Your task to perform on an android device: Show me recent news Image 0: 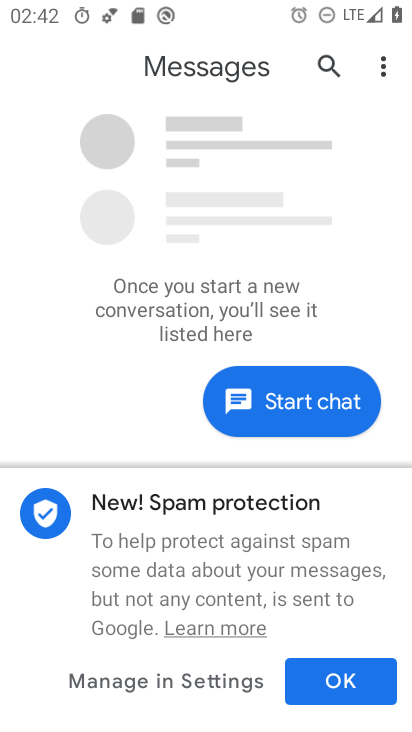
Step 0: press home button
Your task to perform on an android device: Show me recent news Image 1: 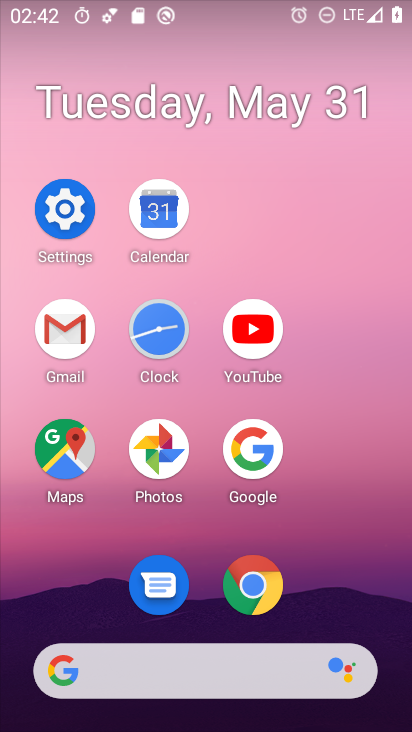
Step 1: click (252, 457)
Your task to perform on an android device: Show me recent news Image 2: 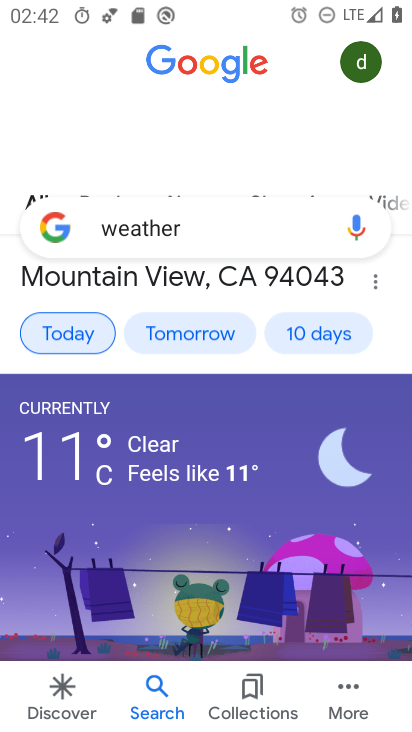
Step 2: click (234, 222)
Your task to perform on an android device: Show me recent news Image 3: 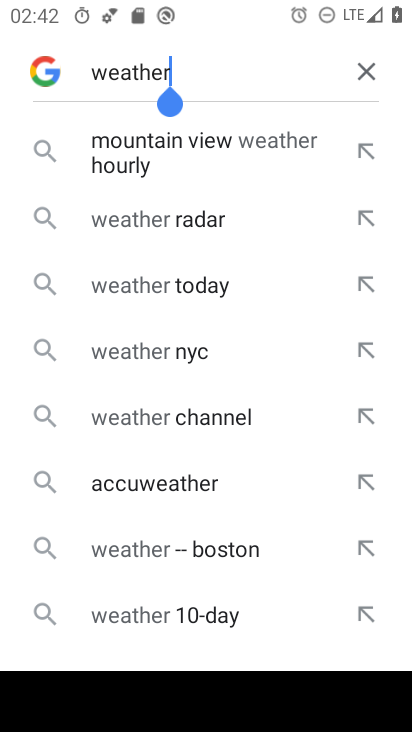
Step 3: click (370, 75)
Your task to perform on an android device: Show me recent news Image 4: 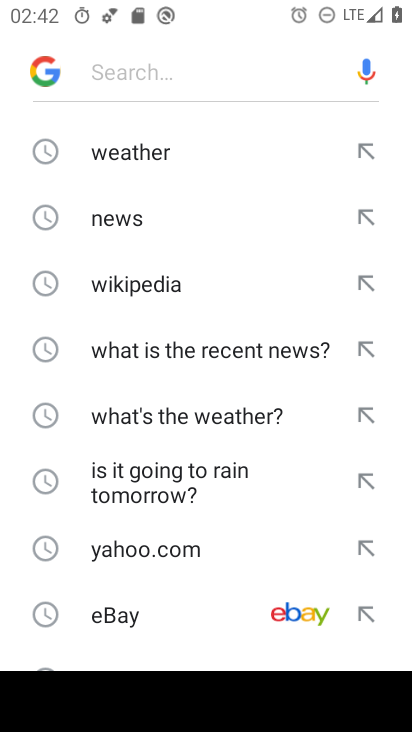
Step 4: drag from (191, 449) to (188, 178)
Your task to perform on an android device: Show me recent news Image 5: 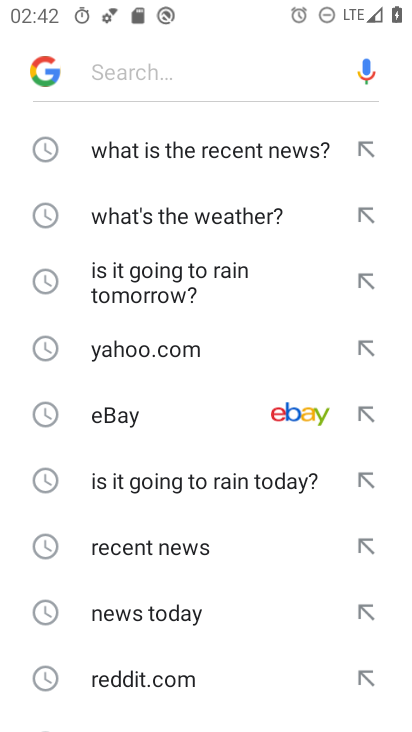
Step 5: click (187, 564)
Your task to perform on an android device: Show me recent news Image 6: 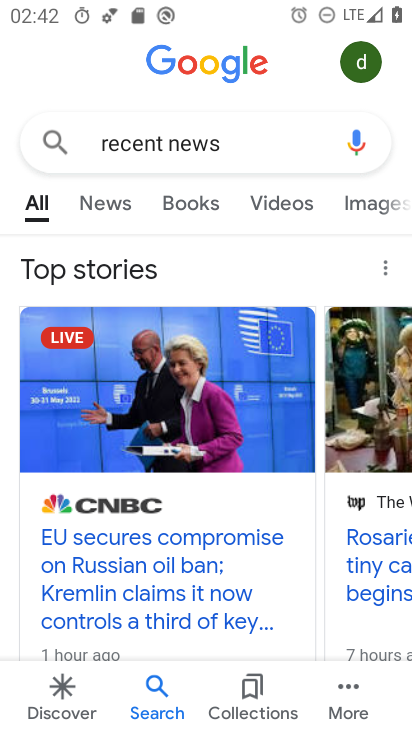
Step 6: task complete